Your task to perform on an android device: move a message to another label in the gmail app Image 0: 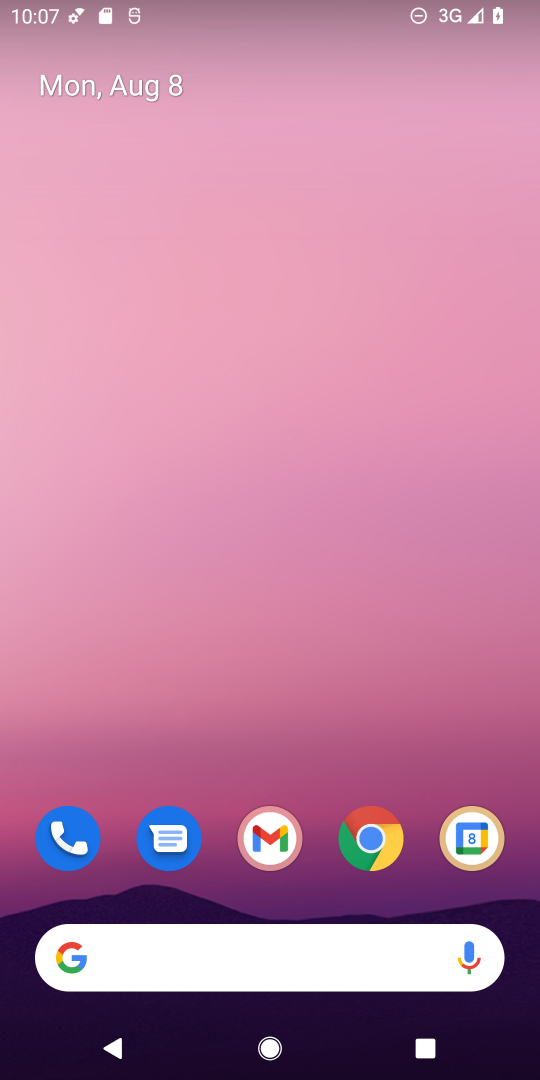
Step 0: press home button
Your task to perform on an android device: move a message to another label in the gmail app Image 1: 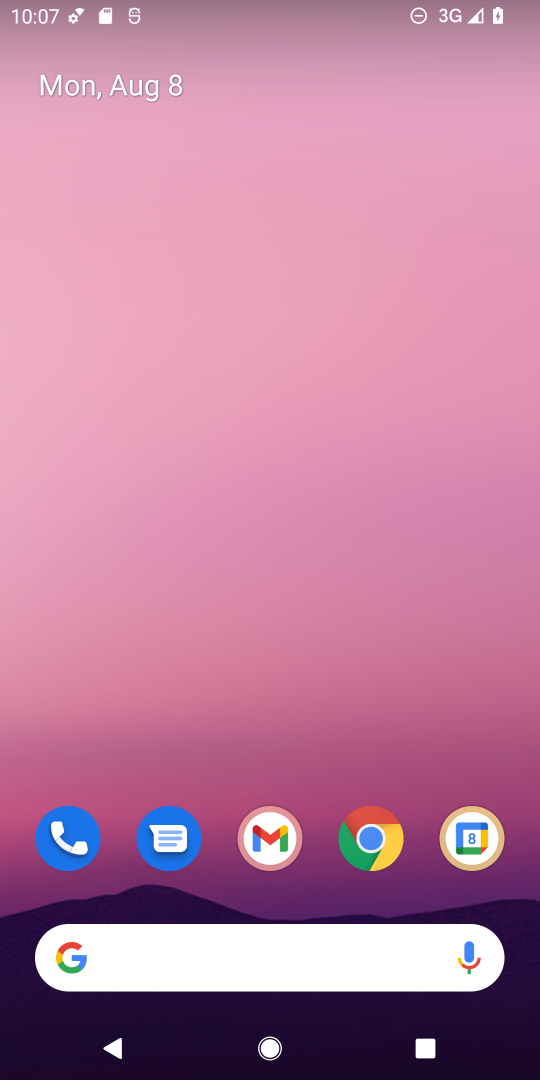
Step 1: click (286, 829)
Your task to perform on an android device: move a message to another label in the gmail app Image 2: 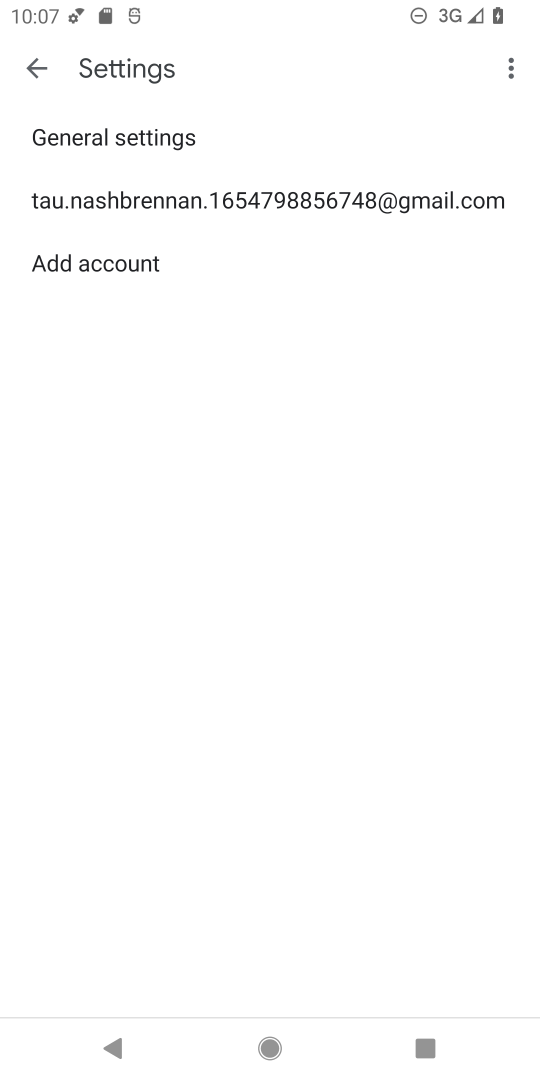
Step 2: click (36, 73)
Your task to perform on an android device: move a message to another label in the gmail app Image 3: 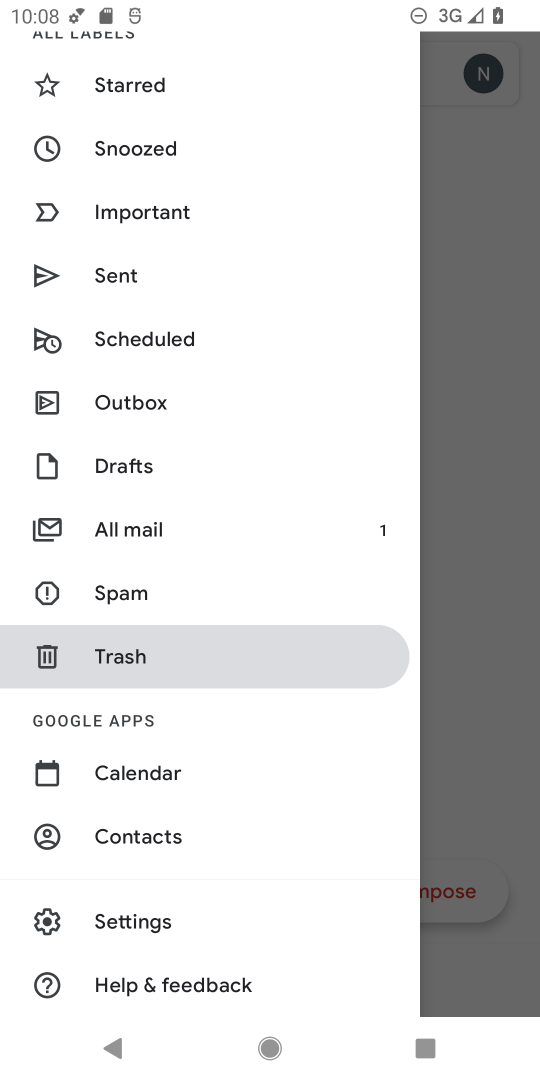
Step 3: click (117, 535)
Your task to perform on an android device: move a message to another label in the gmail app Image 4: 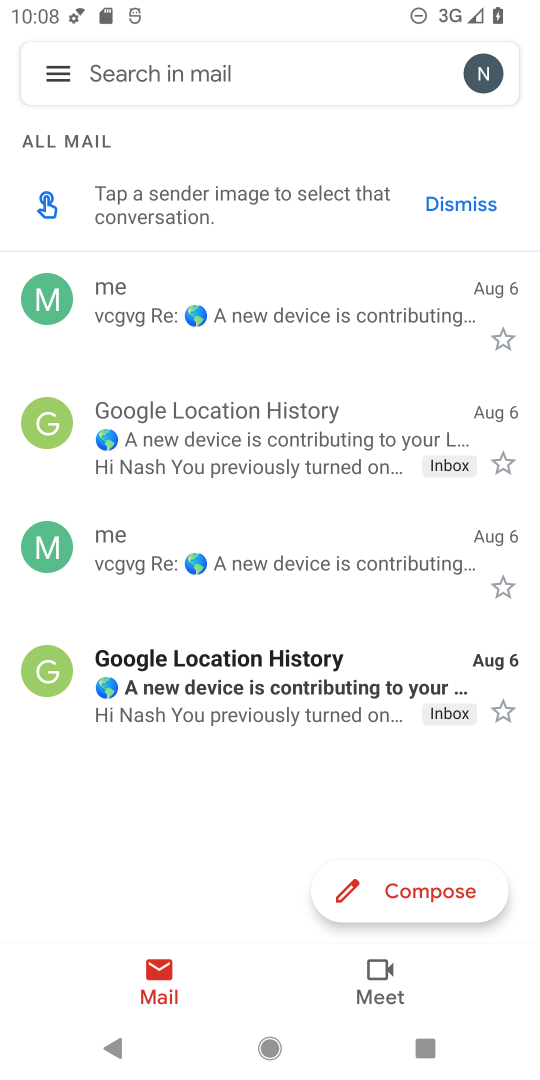
Step 4: click (412, 310)
Your task to perform on an android device: move a message to another label in the gmail app Image 5: 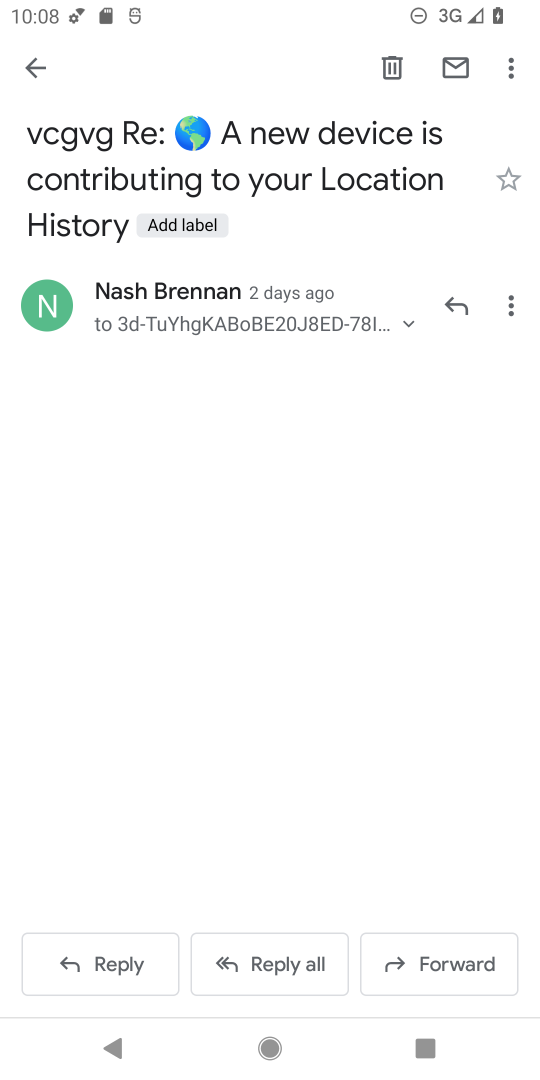
Step 5: click (508, 78)
Your task to perform on an android device: move a message to another label in the gmail app Image 6: 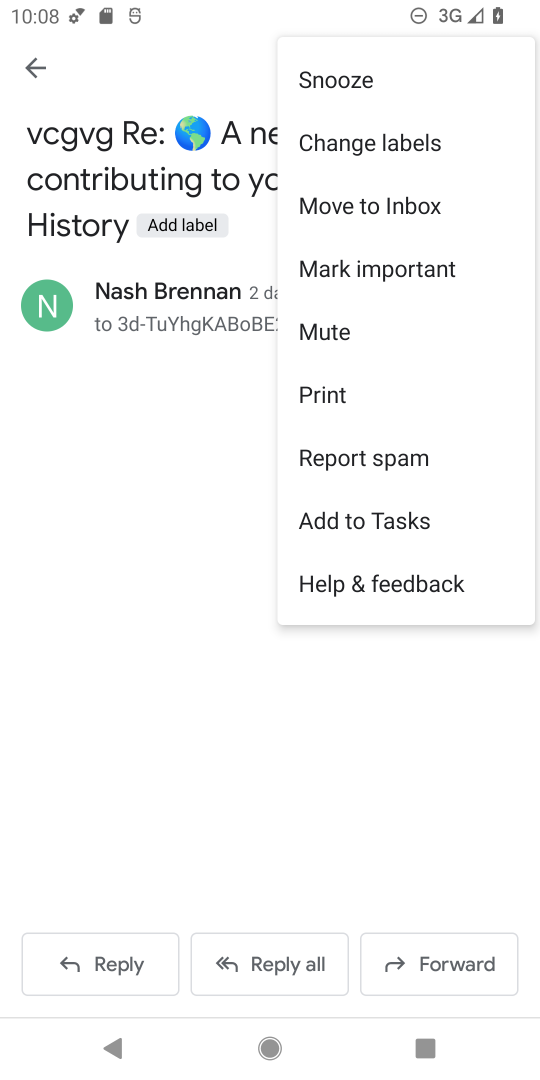
Step 6: click (364, 142)
Your task to perform on an android device: move a message to another label in the gmail app Image 7: 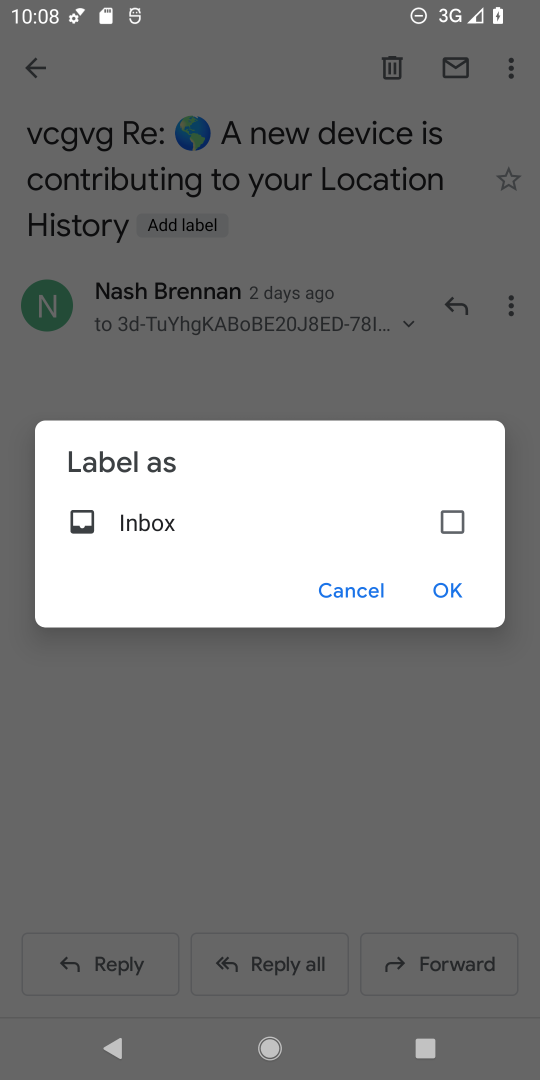
Step 7: click (401, 533)
Your task to perform on an android device: move a message to another label in the gmail app Image 8: 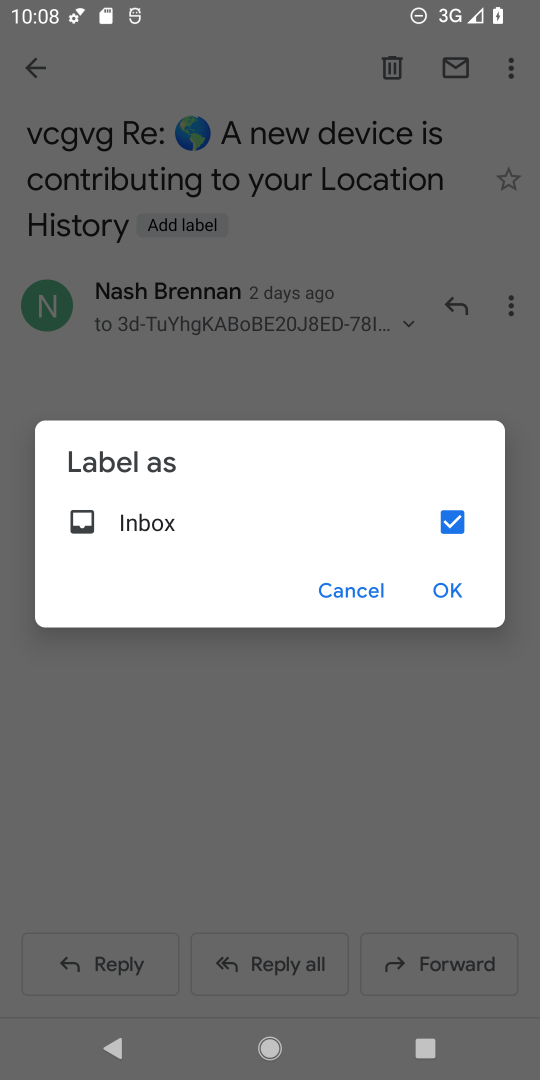
Step 8: click (439, 586)
Your task to perform on an android device: move a message to another label in the gmail app Image 9: 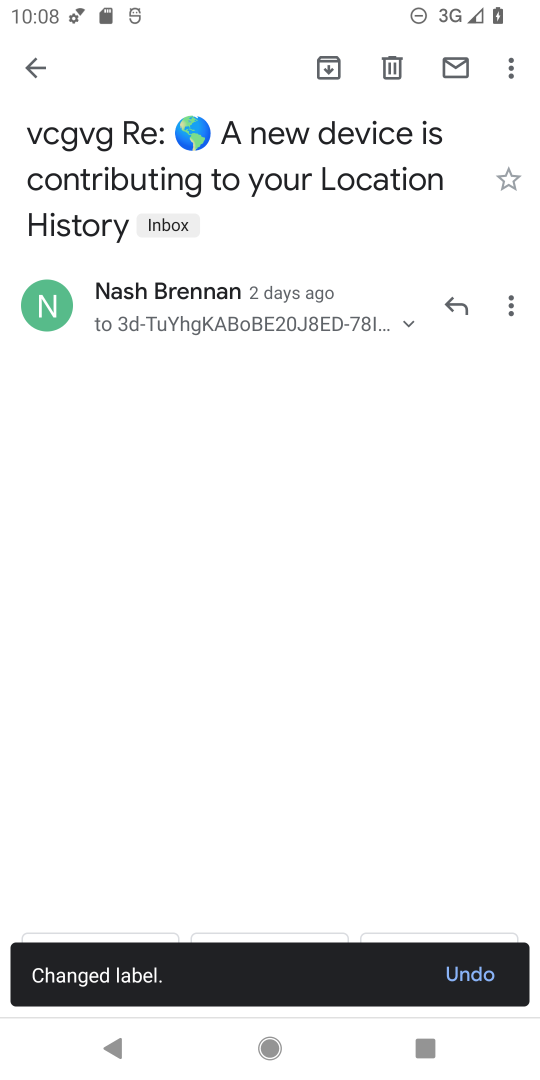
Step 9: task complete